Your task to perform on an android device: turn off priority inbox in the gmail app Image 0: 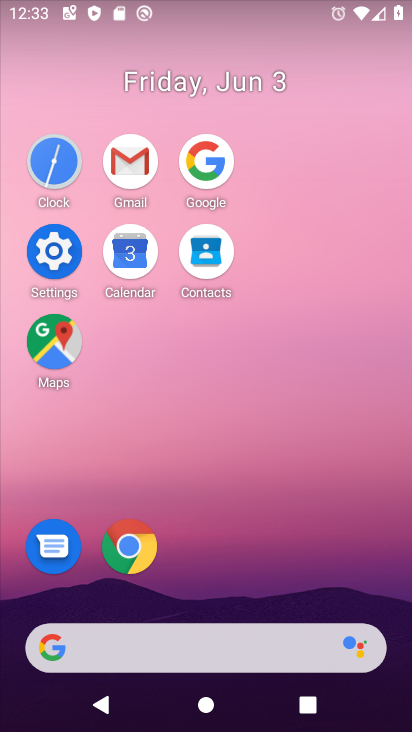
Step 0: click (139, 169)
Your task to perform on an android device: turn off priority inbox in the gmail app Image 1: 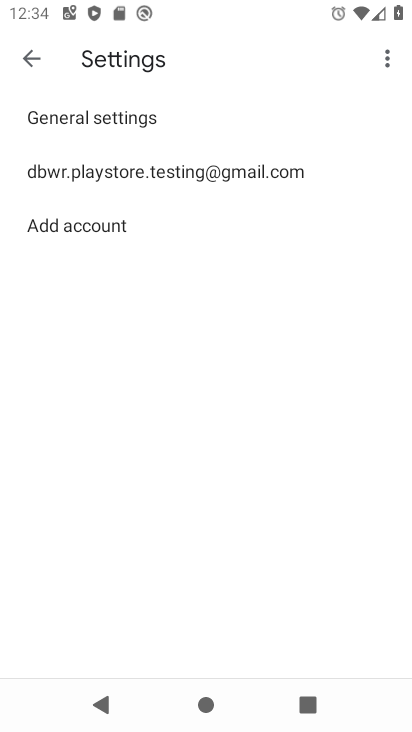
Step 1: click (96, 181)
Your task to perform on an android device: turn off priority inbox in the gmail app Image 2: 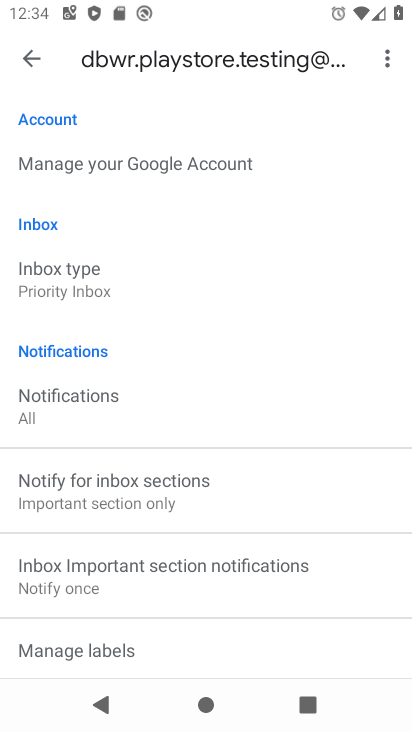
Step 2: click (140, 276)
Your task to perform on an android device: turn off priority inbox in the gmail app Image 3: 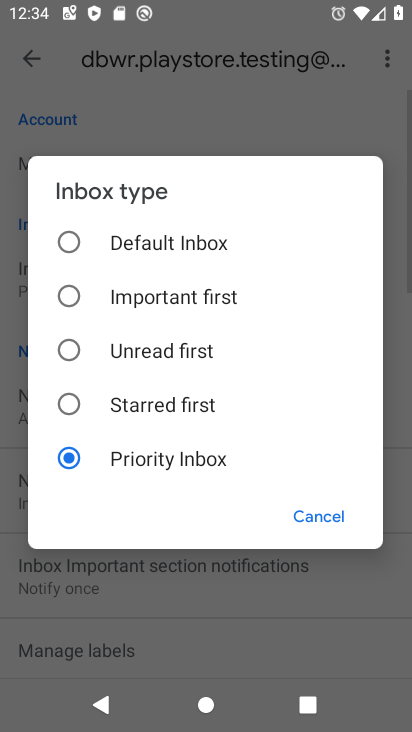
Step 3: click (163, 242)
Your task to perform on an android device: turn off priority inbox in the gmail app Image 4: 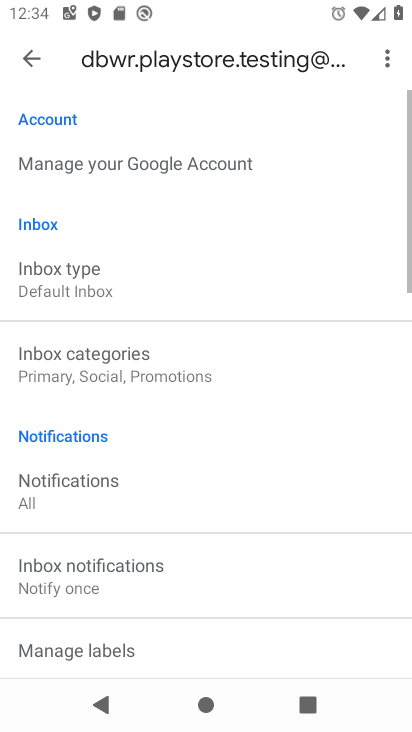
Step 4: task complete